Your task to perform on an android device: What's on my calendar today? Image 0: 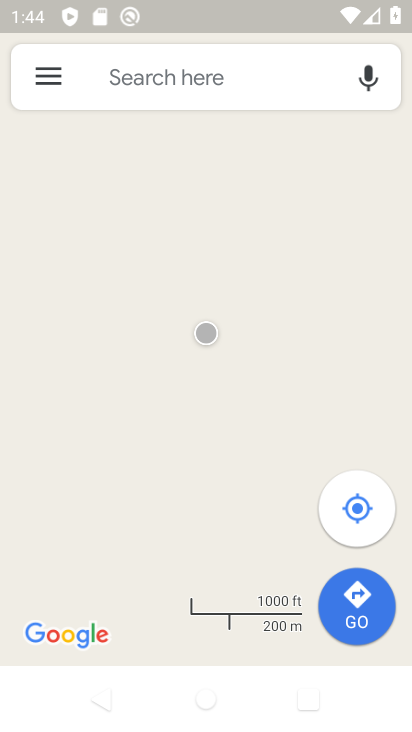
Step 0: press home button
Your task to perform on an android device: What's on my calendar today? Image 1: 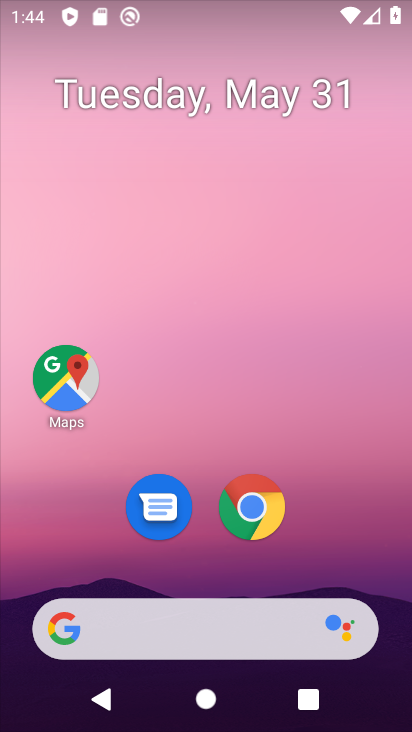
Step 1: click (185, 91)
Your task to perform on an android device: What's on my calendar today? Image 2: 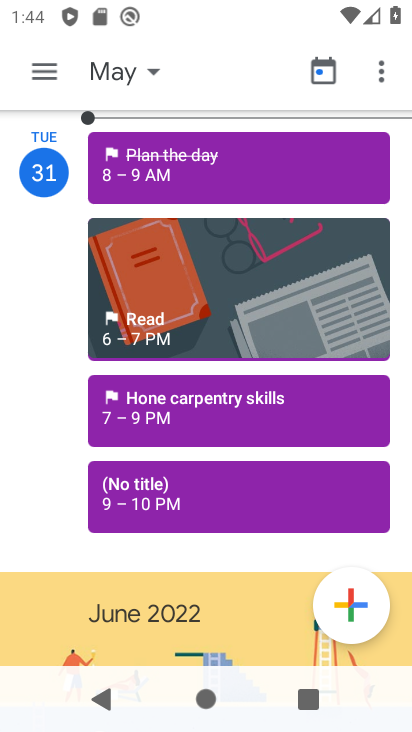
Step 2: click (168, 98)
Your task to perform on an android device: What's on my calendar today? Image 3: 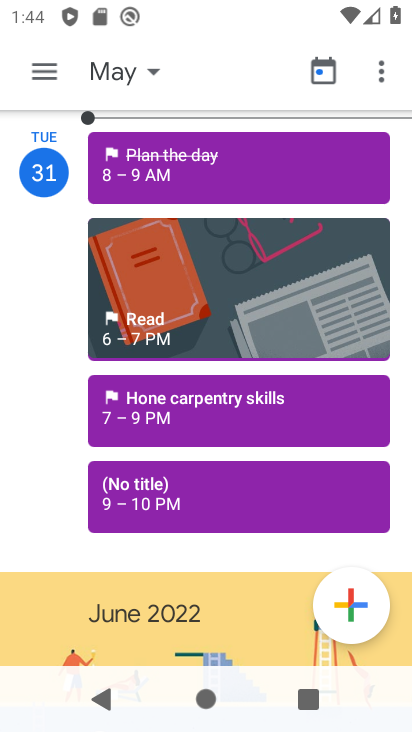
Step 3: task complete